Your task to perform on an android device: Go to settings Image 0: 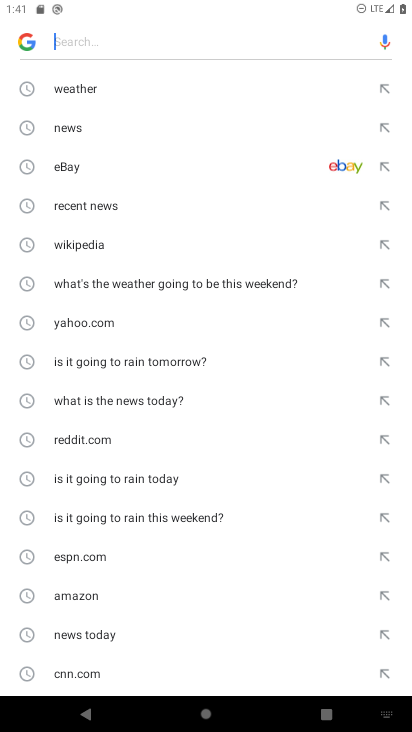
Step 0: press home button
Your task to perform on an android device: Go to settings Image 1: 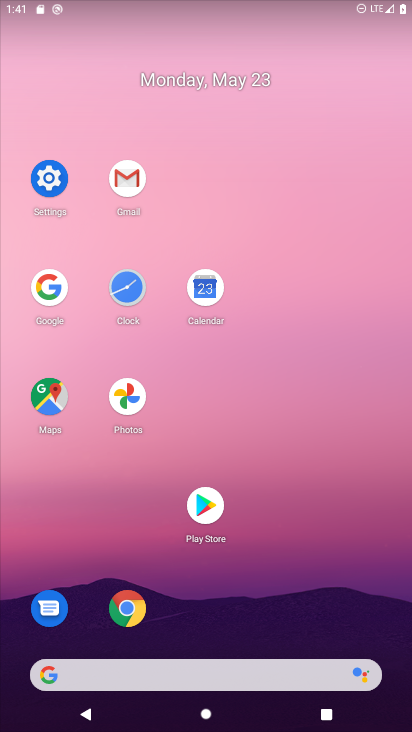
Step 1: click (62, 181)
Your task to perform on an android device: Go to settings Image 2: 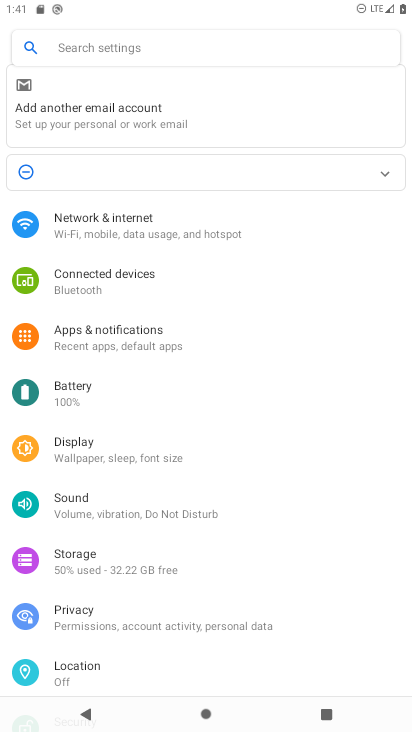
Step 2: task complete